Your task to perform on an android device: Open settings on Google Maps Image 0: 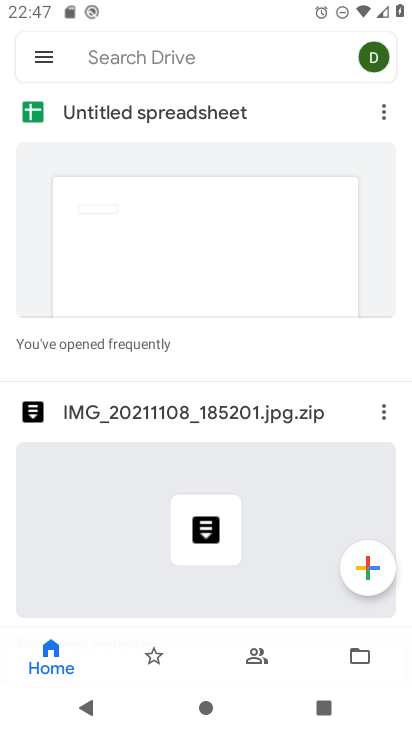
Step 0: press home button
Your task to perform on an android device: Open settings on Google Maps Image 1: 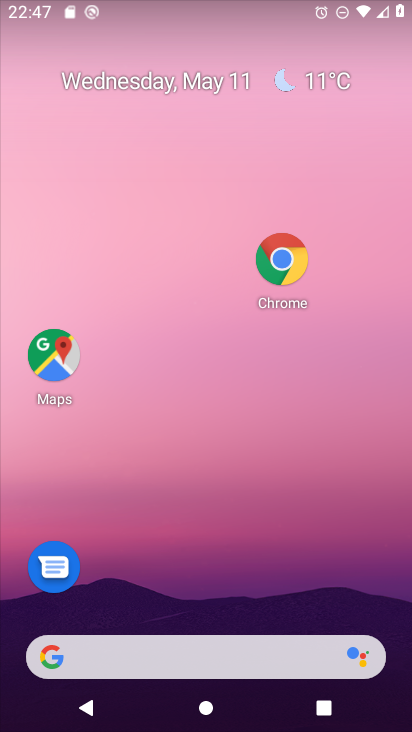
Step 1: click (53, 372)
Your task to perform on an android device: Open settings on Google Maps Image 2: 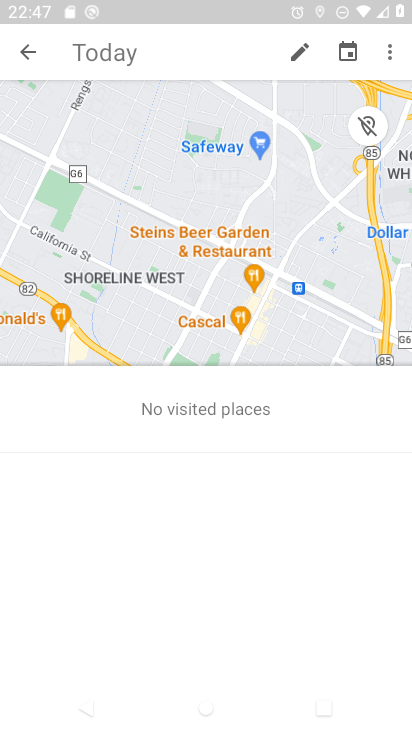
Step 2: click (32, 54)
Your task to perform on an android device: Open settings on Google Maps Image 3: 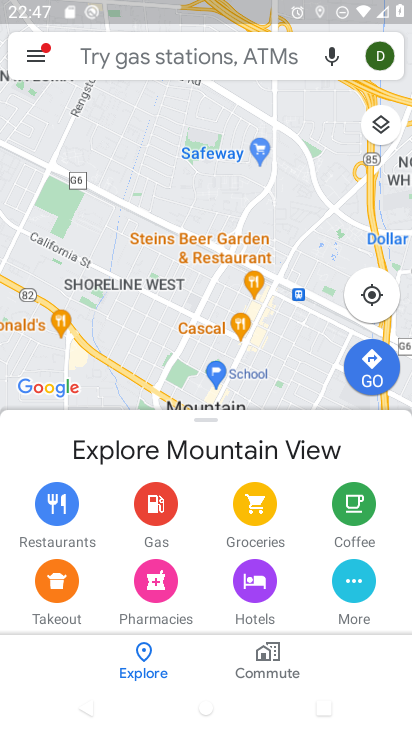
Step 3: click (37, 56)
Your task to perform on an android device: Open settings on Google Maps Image 4: 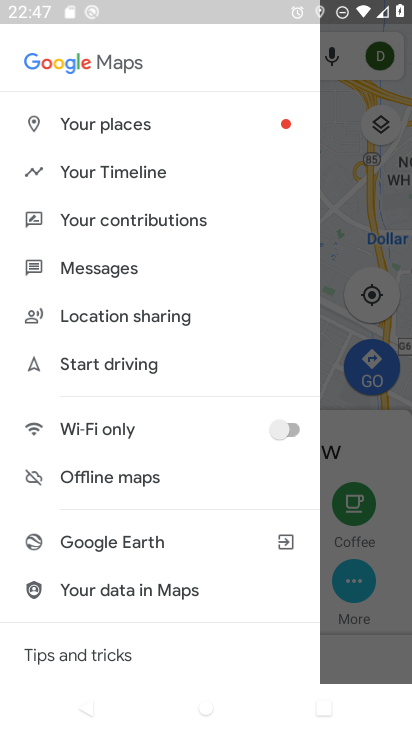
Step 4: drag from (144, 627) to (188, 392)
Your task to perform on an android device: Open settings on Google Maps Image 5: 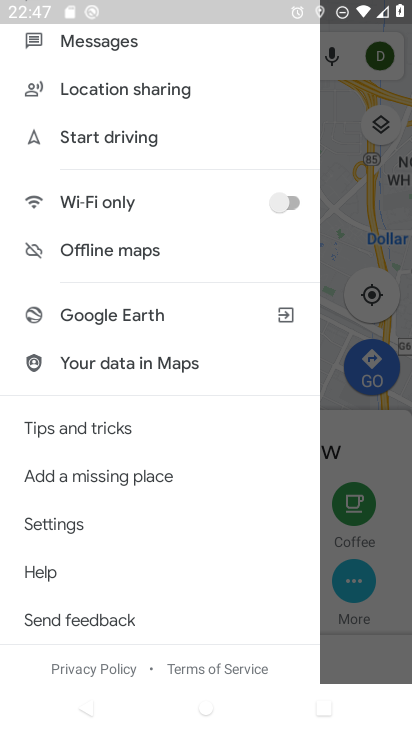
Step 5: click (55, 523)
Your task to perform on an android device: Open settings on Google Maps Image 6: 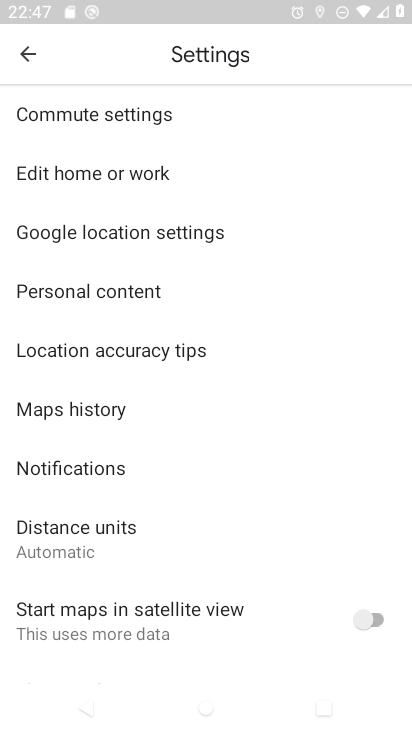
Step 6: task complete